Your task to perform on an android device: Search for Mexican restaurants on Maps Image 0: 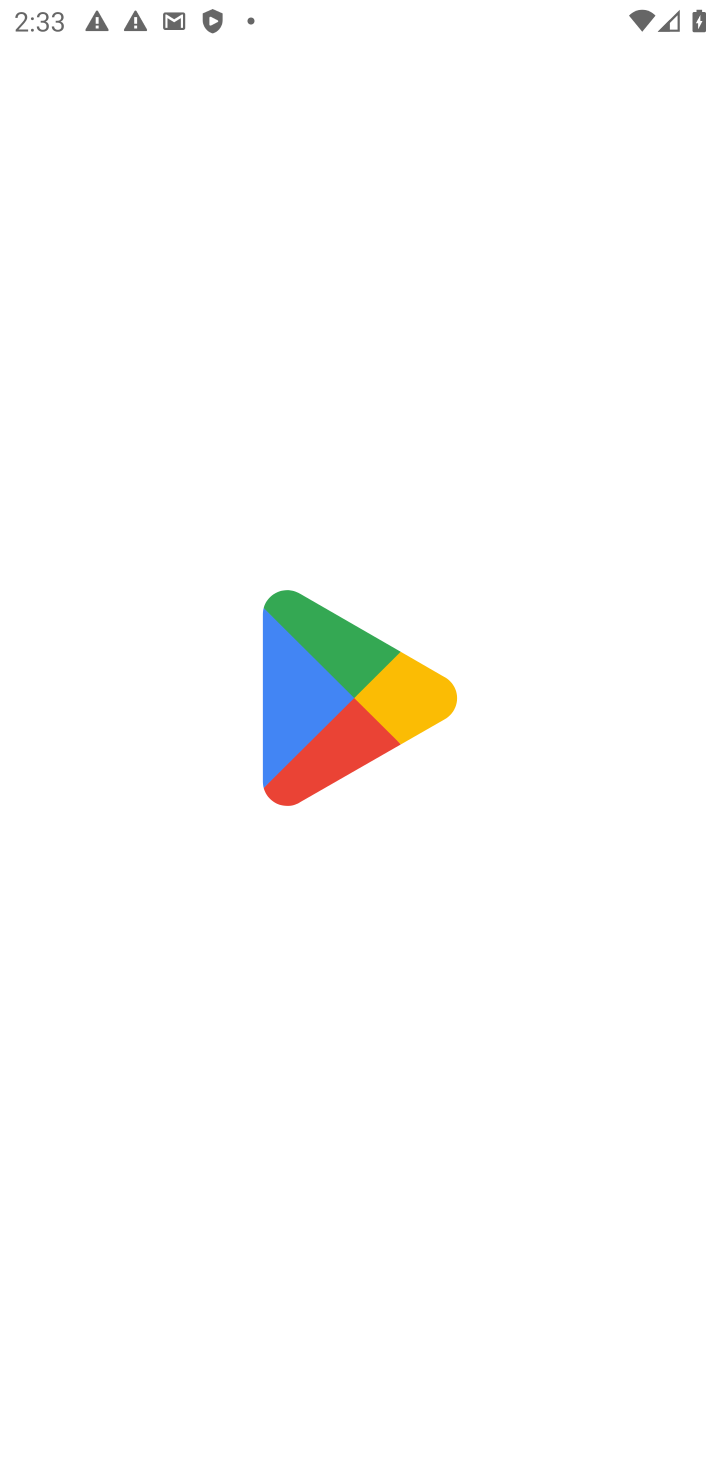
Step 0: task complete